Your task to perform on an android device: Is it going to rain today? Image 0: 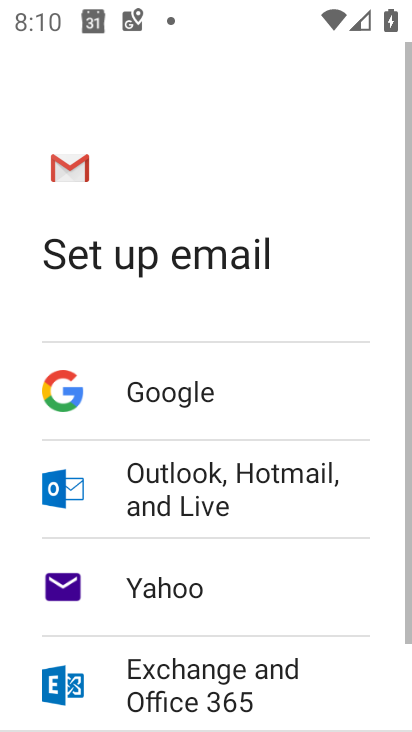
Step 0: drag from (372, 546) to (333, 207)
Your task to perform on an android device: Is it going to rain today? Image 1: 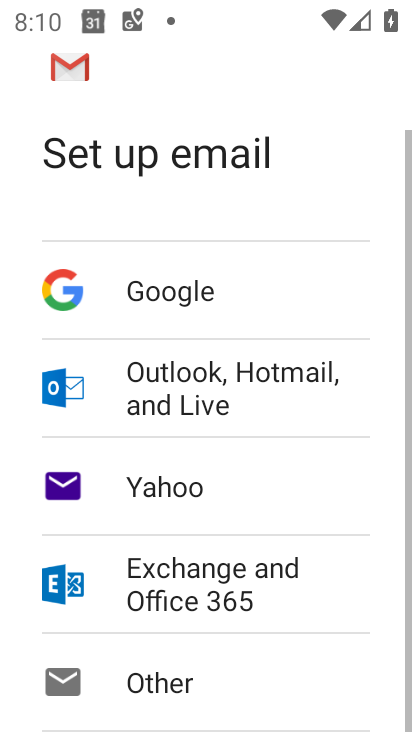
Step 1: press home button
Your task to perform on an android device: Is it going to rain today? Image 2: 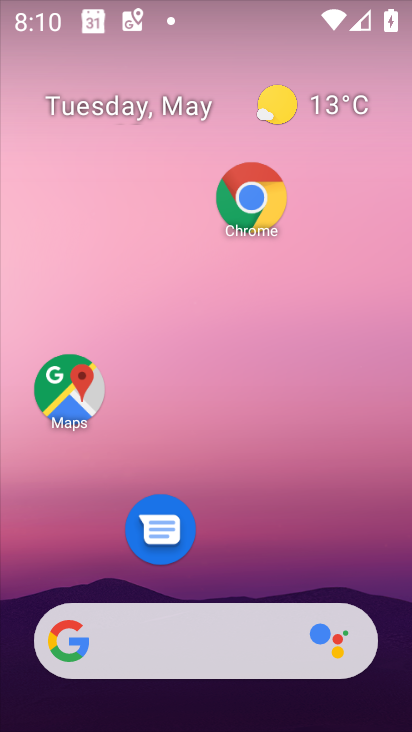
Step 2: drag from (238, 552) to (257, 3)
Your task to perform on an android device: Is it going to rain today? Image 3: 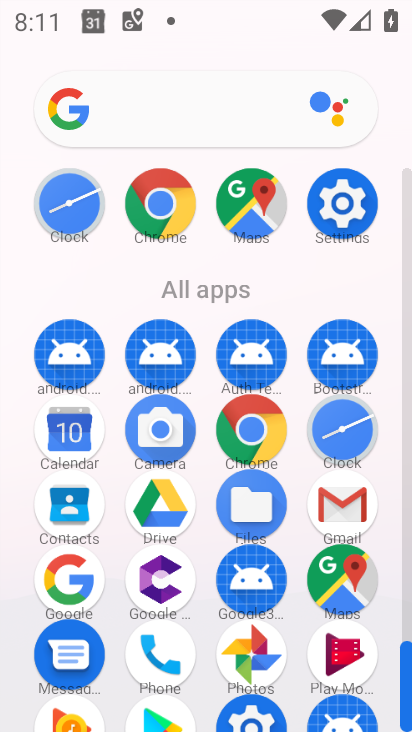
Step 3: click (183, 112)
Your task to perform on an android device: Is it going to rain today? Image 4: 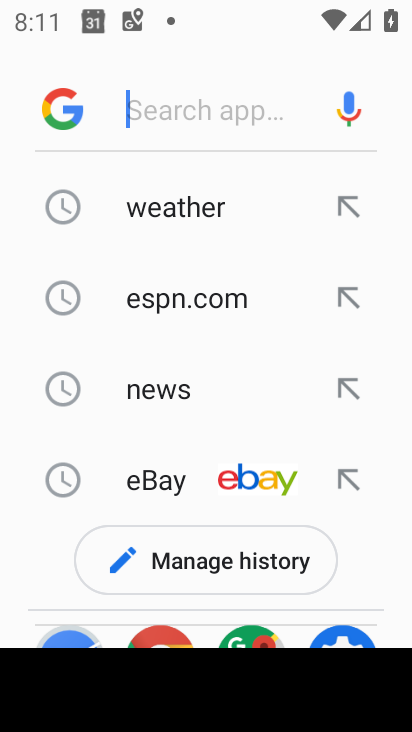
Step 4: click (186, 185)
Your task to perform on an android device: Is it going to rain today? Image 5: 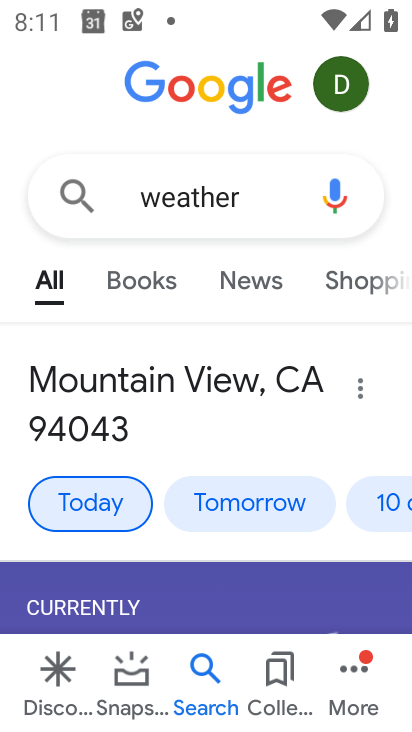
Step 5: task complete